Your task to perform on an android device: Open Wikipedia Image 0: 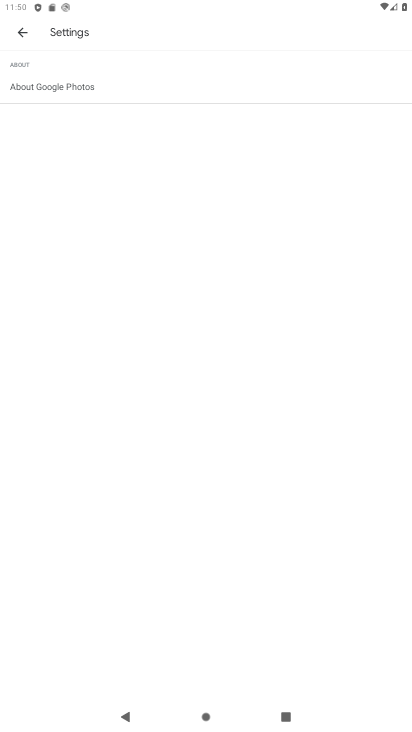
Step 0: press home button
Your task to perform on an android device: Open Wikipedia Image 1: 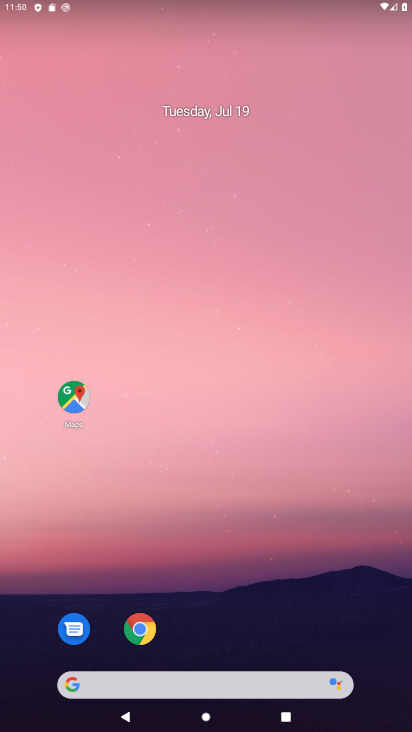
Step 1: click (142, 634)
Your task to perform on an android device: Open Wikipedia Image 2: 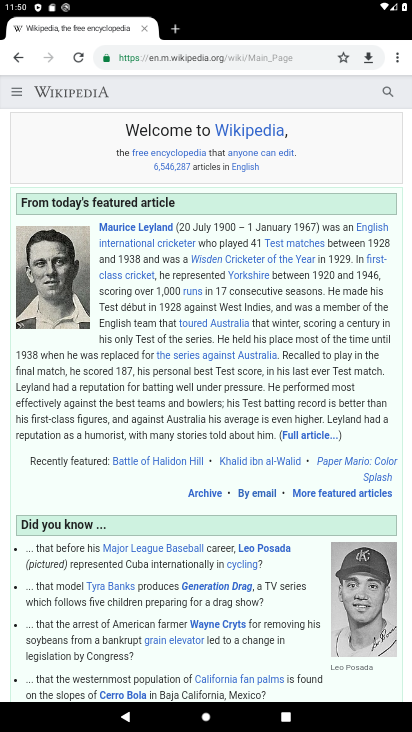
Step 2: task complete